Your task to perform on an android device: What's the weather today? Image 0: 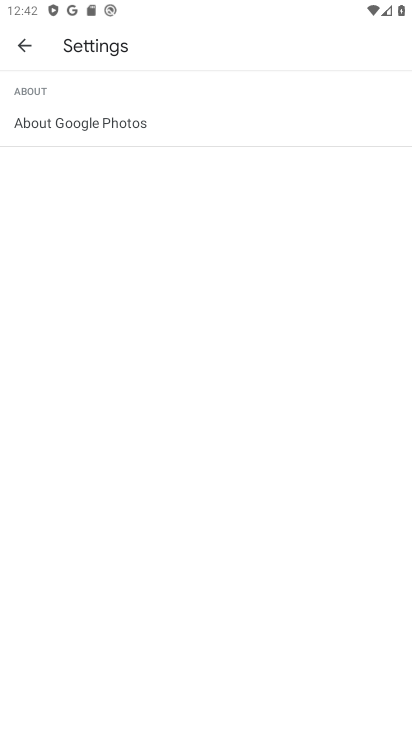
Step 0: press home button
Your task to perform on an android device: What's the weather today? Image 1: 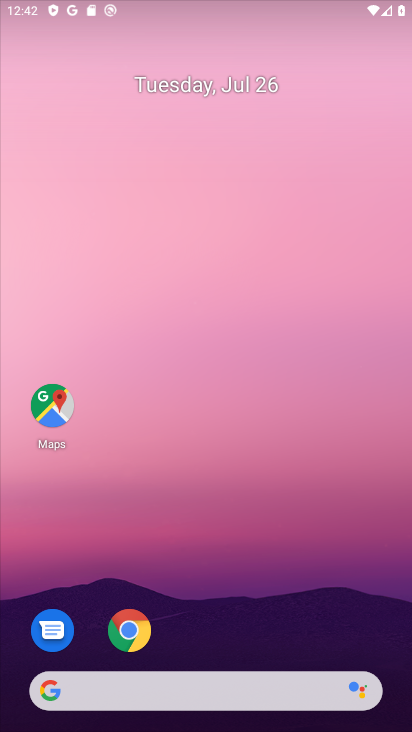
Step 1: drag from (247, 597) to (407, 78)
Your task to perform on an android device: What's the weather today? Image 2: 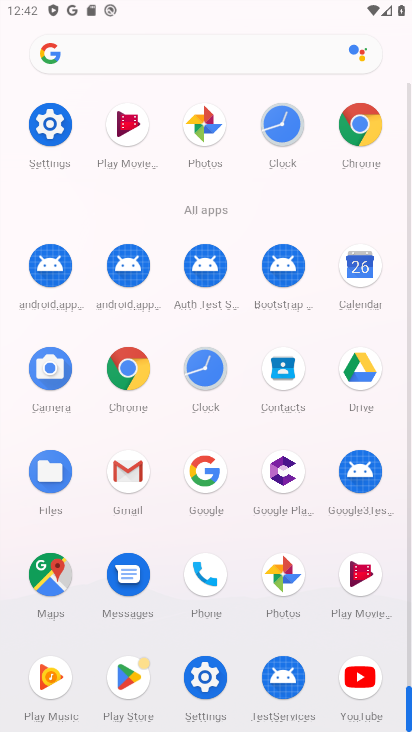
Step 2: click (200, 476)
Your task to perform on an android device: What's the weather today? Image 3: 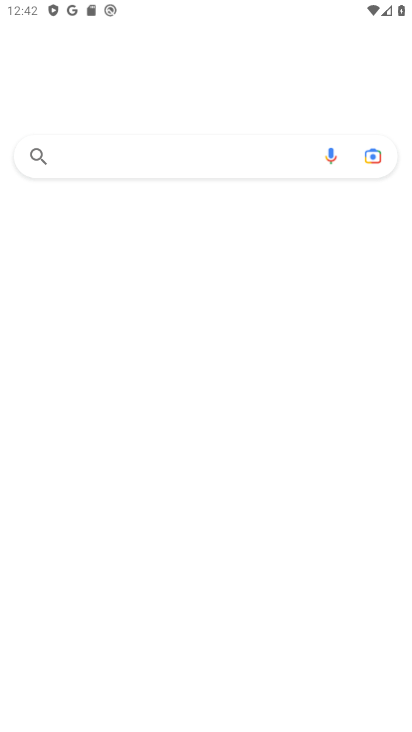
Step 3: click (222, 464)
Your task to perform on an android device: What's the weather today? Image 4: 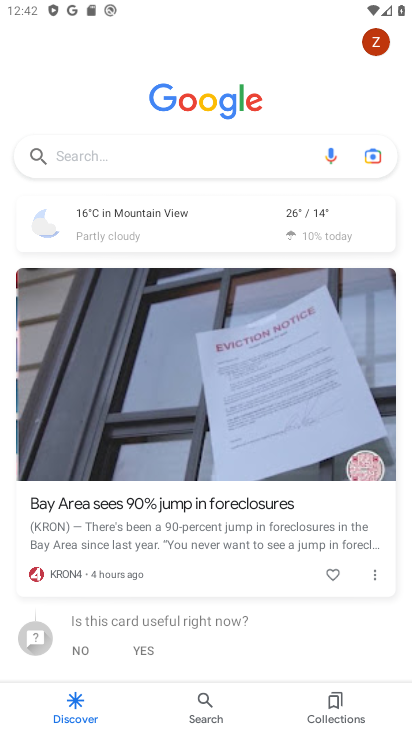
Step 4: click (170, 243)
Your task to perform on an android device: What's the weather today? Image 5: 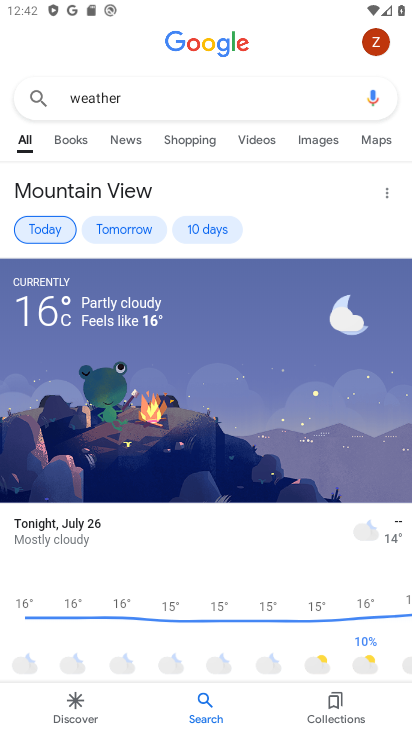
Step 5: task complete